Your task to perform on an android device: toggle location history Image 0: 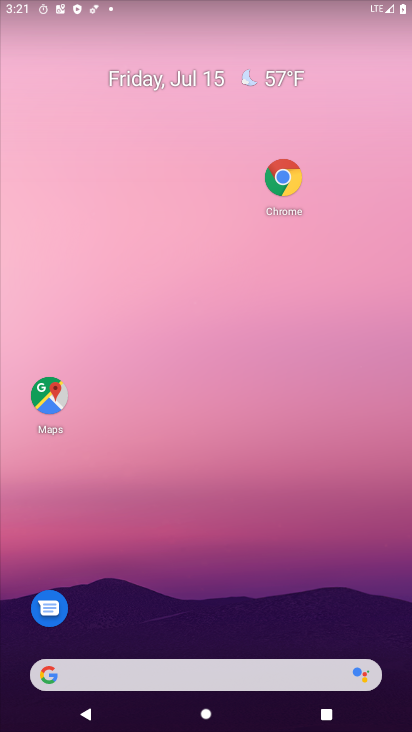
Step 0: press home button
Your task to perform on an android device: toggle location history Image 1: 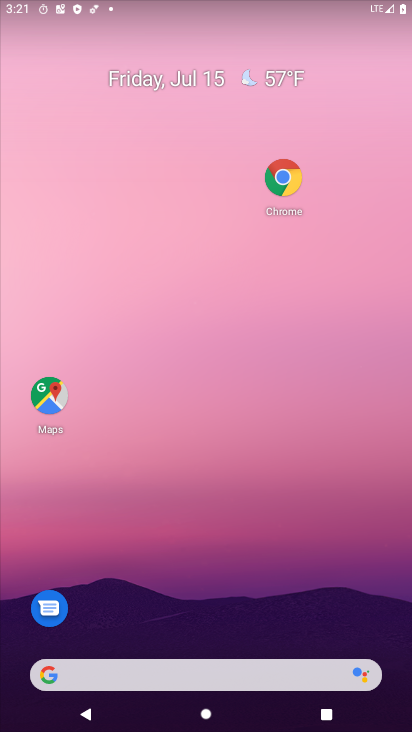
Step 1: click (42, 405)
Your task to perform on an android device: toggle location history Image 2: 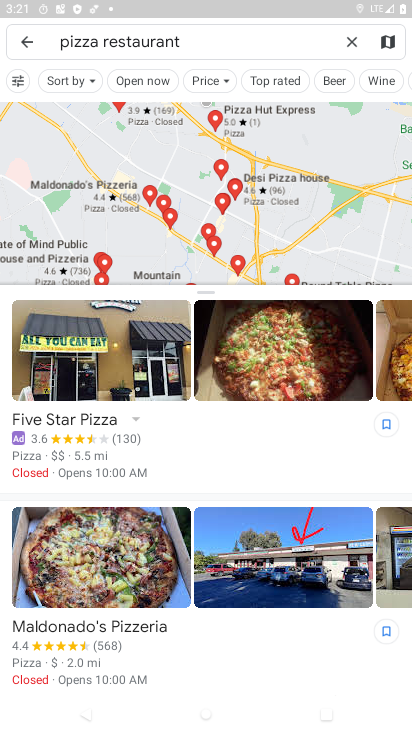
Step 2: click (21, 44)
Your task to perform on an android device: toggle location history Image 3: 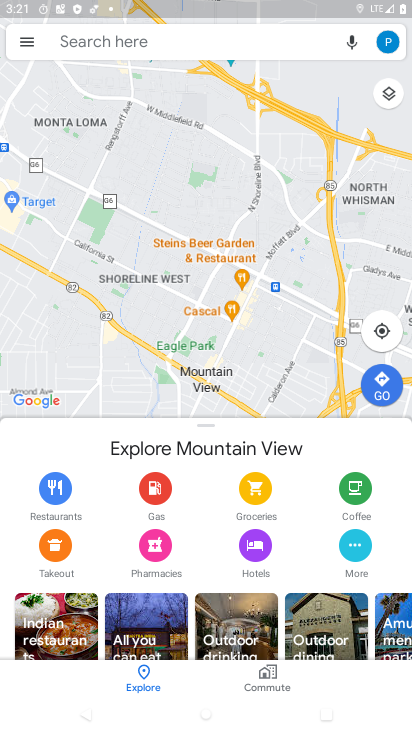
Step 3: click (21, 44)
Your task to perform on an android device: toggle location history Image 4: 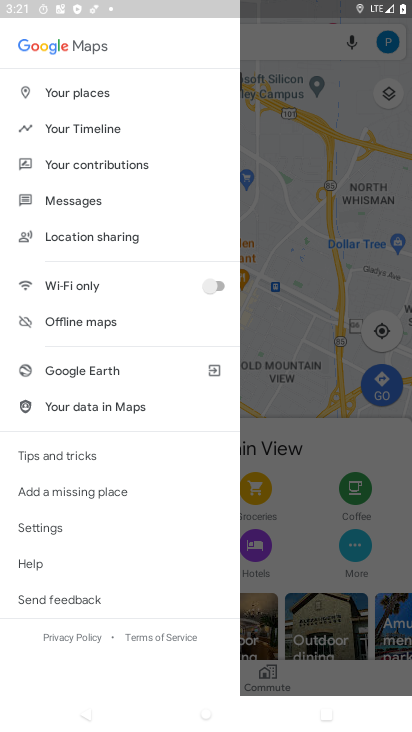
Step 4: click (33, 121)
Your task to perform on an android device: toggle location history Image 5: 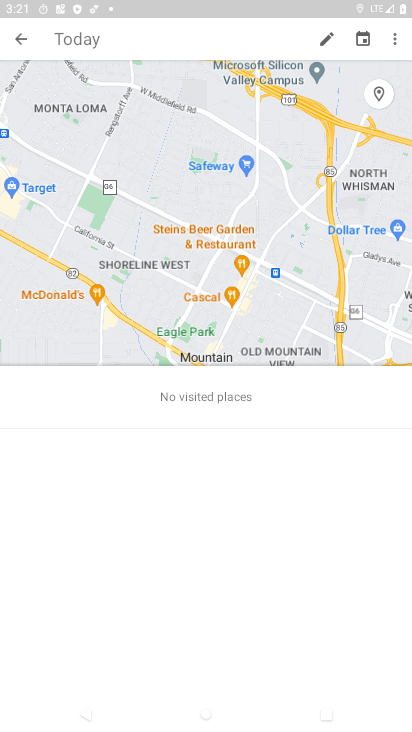
Step 5: click (396, 34)
Your task to perform on an android device: toggle location history Image 6: 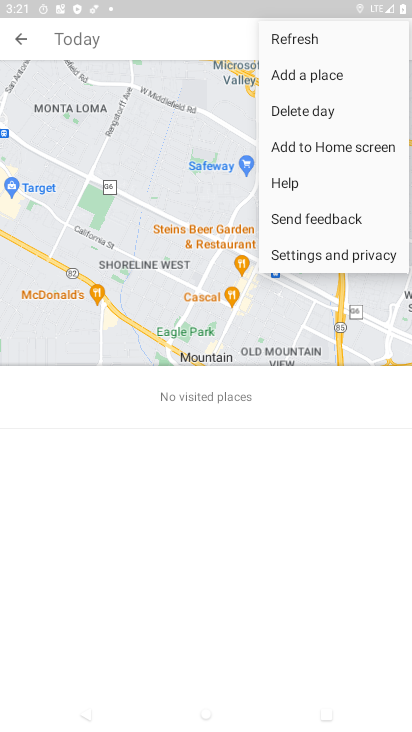
Step 6: click (309, 260)
Your task to perform on an android device: toggle location history Image 7: 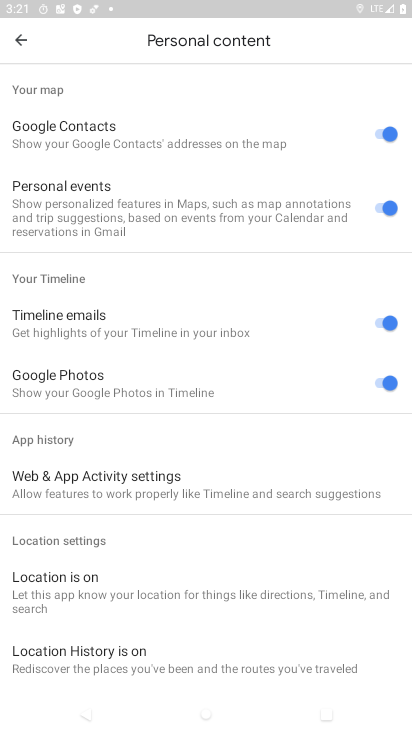
Step 7: click (106, 655)
Your task to perform on an android device: toggle location history Image 8: 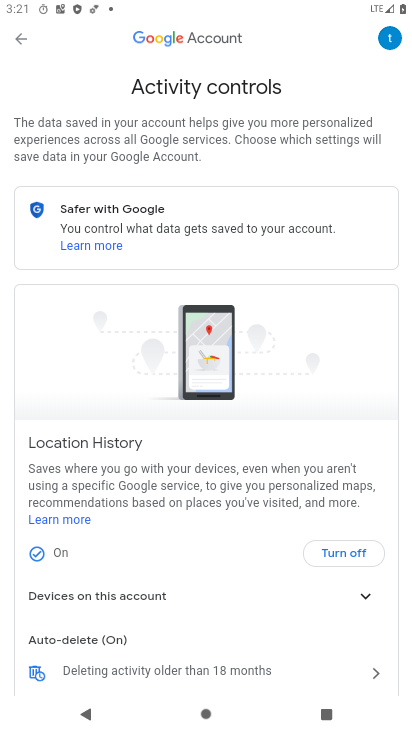
Step 8: click (327, 549)
Your task to perform on an android device: toggle location history Image 9: 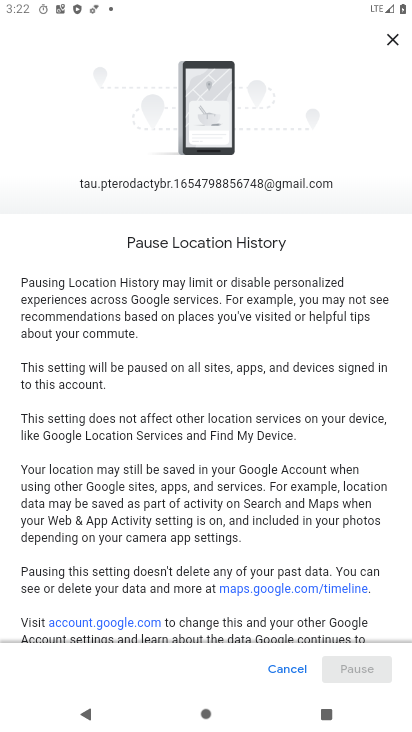
Step 9: drag from (309, 559) to (275, 179)
Your task to perform on an android device: toggle location history Image 10: 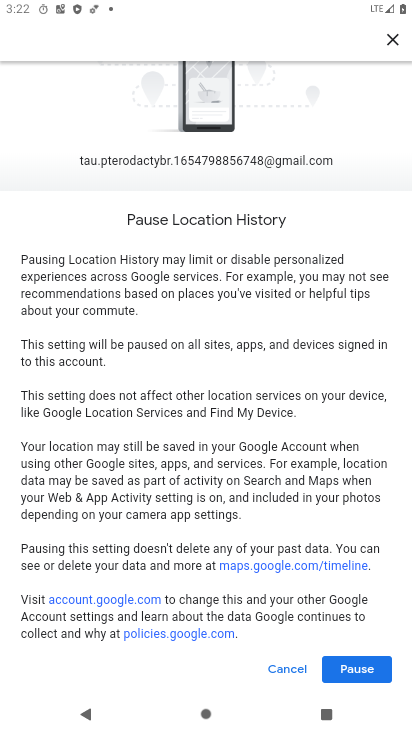
Step 10: click (346, 666)
Your task to perform on an android device: toggle location history Image 11: 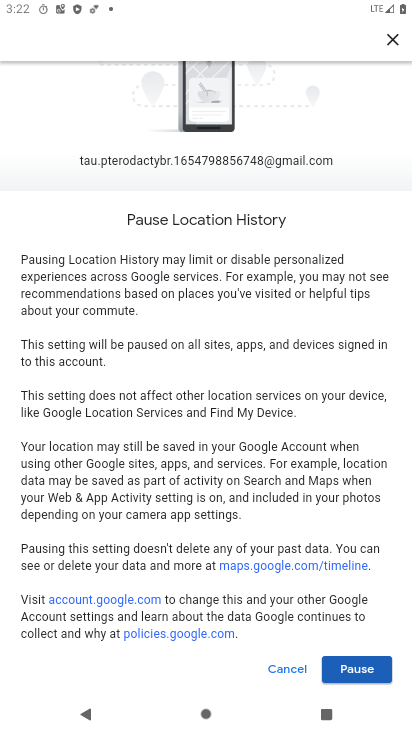
Step 11: click (355, 667)
Your task to perform on an android device: toggle location history Image 12: 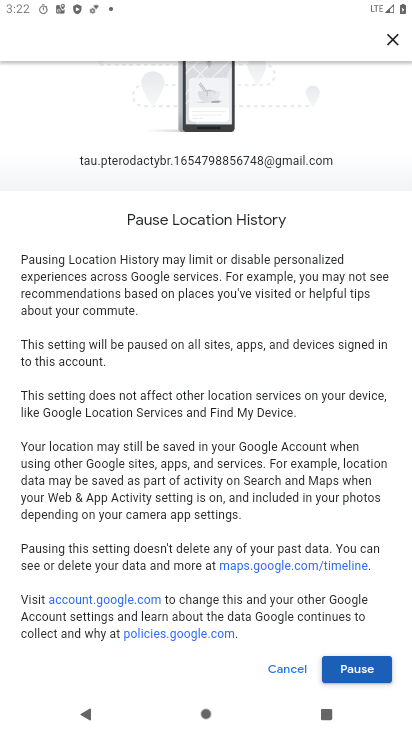
Step 12: click (355, 667)
Your task to perform on an android device: toggle location history Image 13: 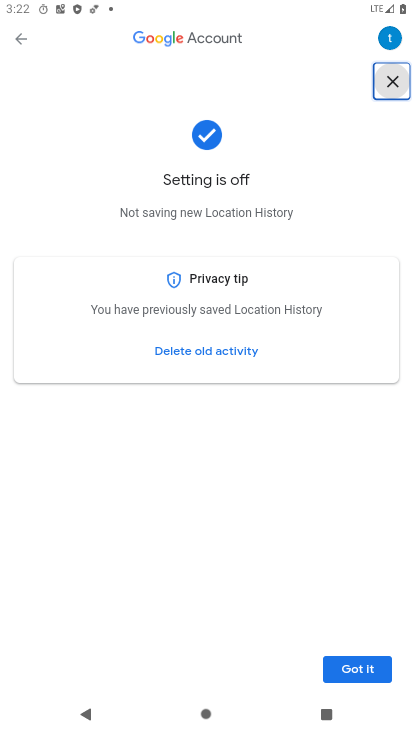
Step 13: click (355, 667)
Your task to perform on an android device: toggle location history Image 14: 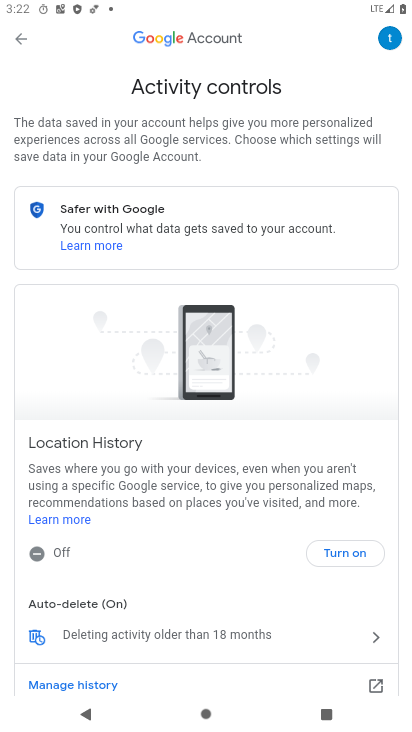
Step 14: task complete